Your task to perform on an android device: move an email to a new category in the gmail app Image 0: 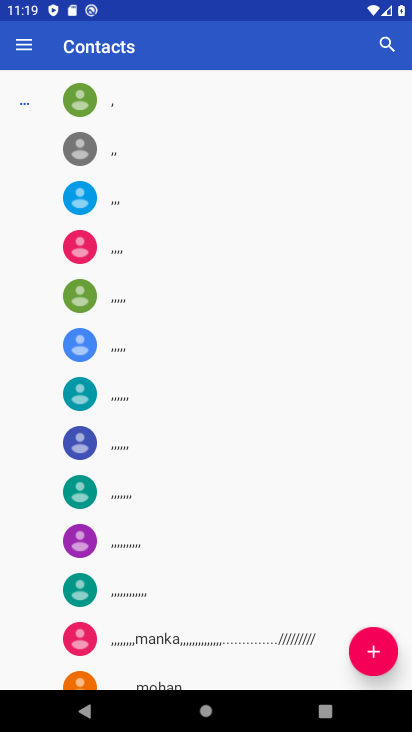
Step 0: press home button
Your task to perform on an android device: move an email to a new category in the gmail app Image 1: 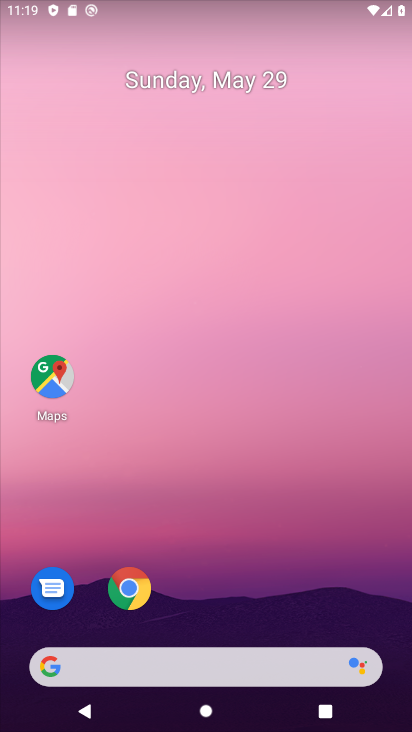
Step 1: drag from (277, 547) to (340, 96)
Your task to perform on an android device: move an email to a new category in the gmail app Image 2: 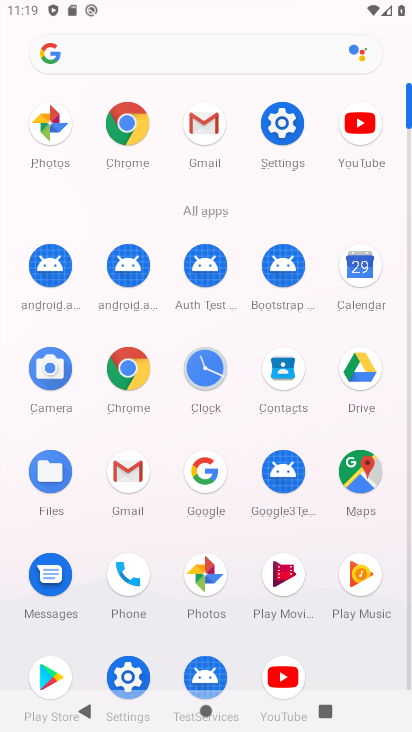
Step 2: click (199, 123)
Your task to perform on an android device: move an email to a new category in the gmail app Image 3: 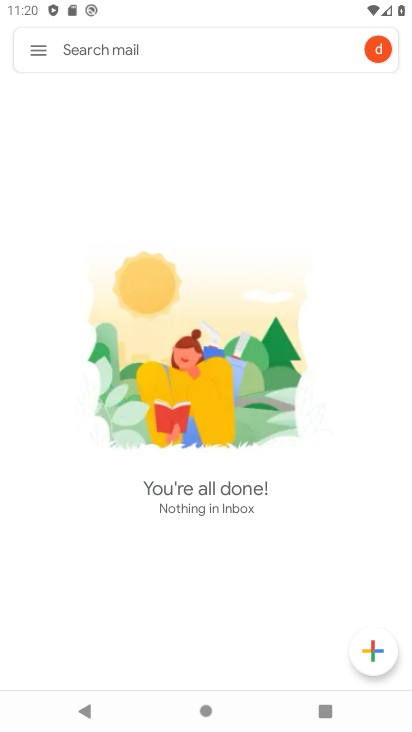
Step 3: click (43, 52)
Your task to perform on an android device: move an email to a new category in the gmail app Image 4: 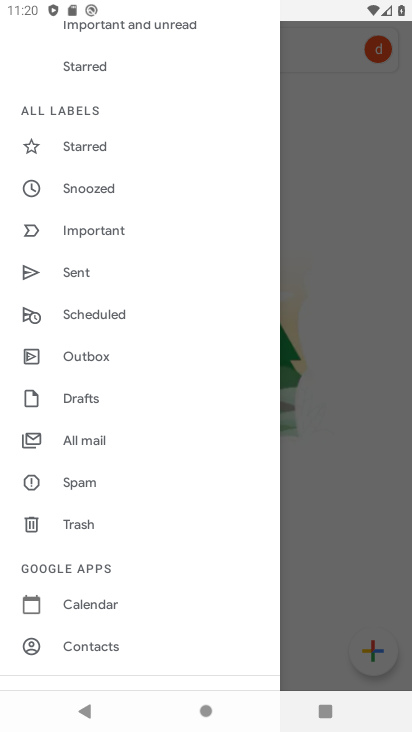
Step 4: click (335, 274)
Your task to perform on an android device: move an email to a new category in the gmail app Image 5: 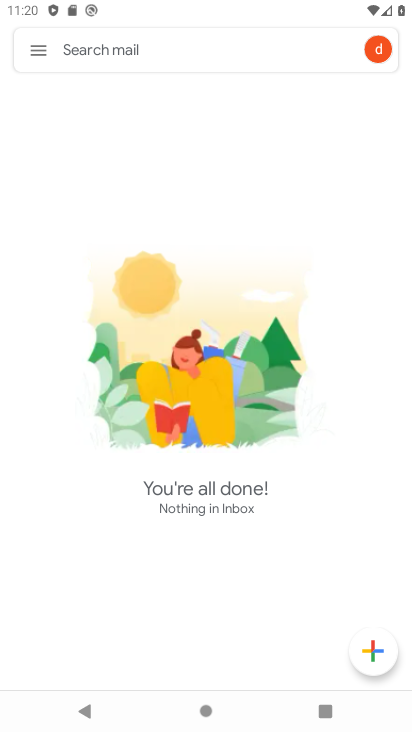
Step 5: task complete